Your task to perform on an android device: Show me popular games on the Play Store Image 0: 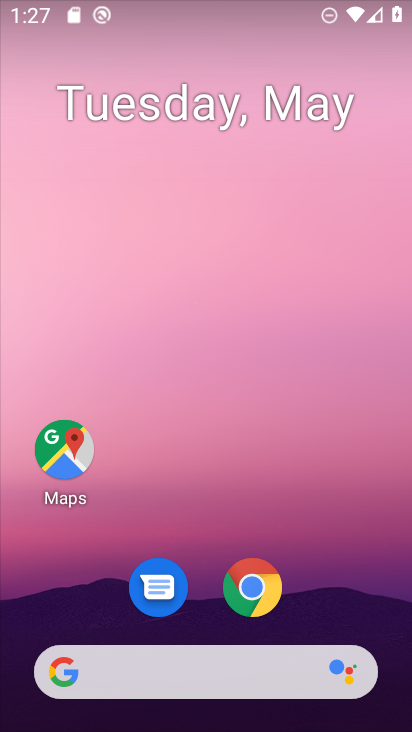
Step 0: drag from (222, 619) to (244, 425)
Your task to perform on an android device: Show me popular games on the Play Store Image 1: 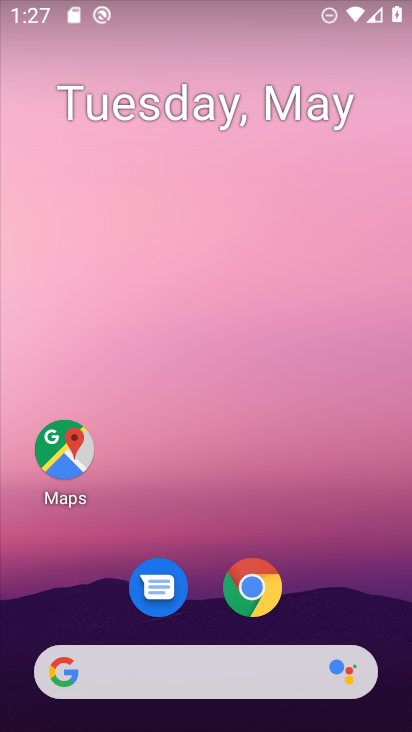
Step 1: drag from (204, 613) to (263, 145)
Your task to perform on an android device: Show me popular games on the Play Store Image 2: 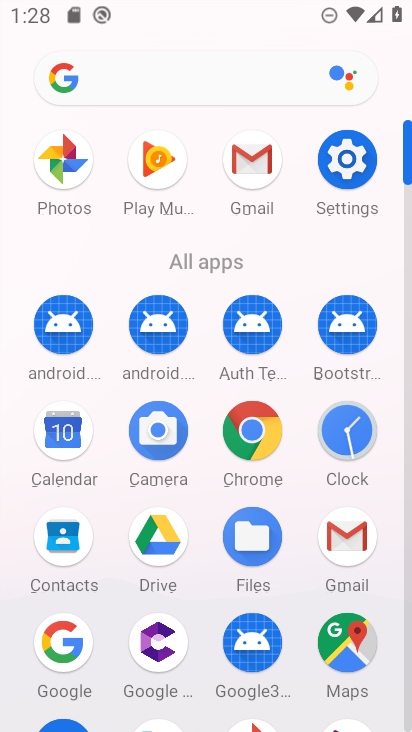
Step 2: drag from (134, 584) to (132, 34)
Your task to perform on an android device: Show me popular games on the Play Store Image 3: 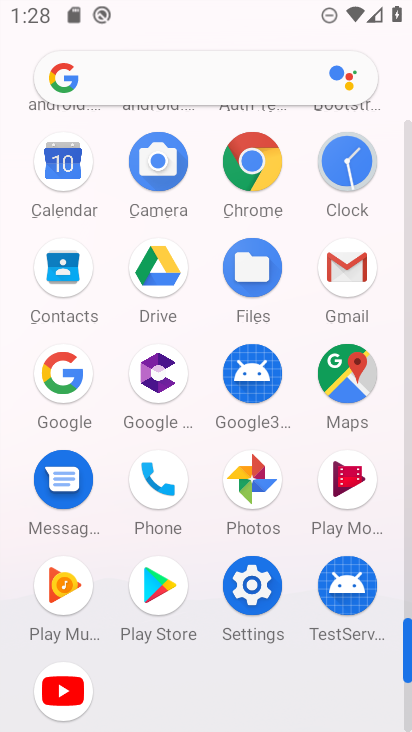
Step 3: click (145, 583)
Your task to perform on an android device: Show me popular games on the Play Store Image 4: 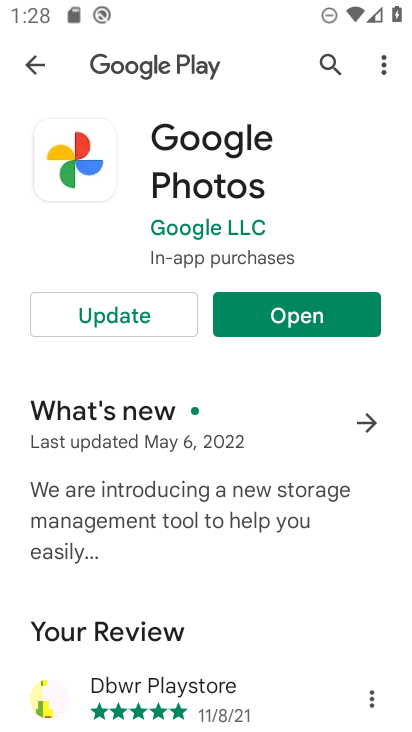
Step 4: click (29, 64)
Your task to perform on an android device: Show me popular games on the Play Store Image 5: 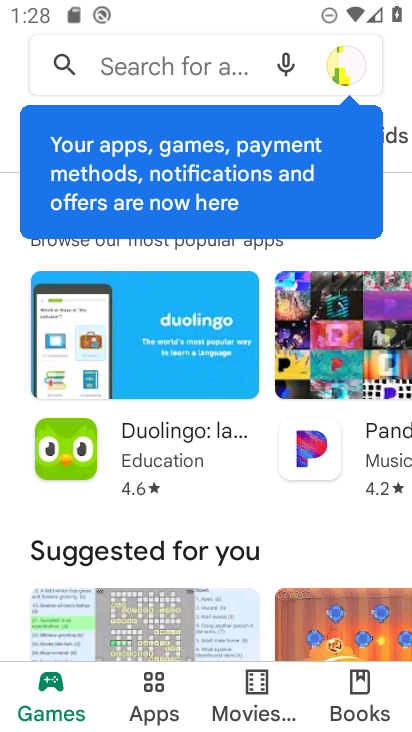
Step 5: click (397, 214)
Your task to perform on an android device: Show me popular games on the Play Store Image 6: 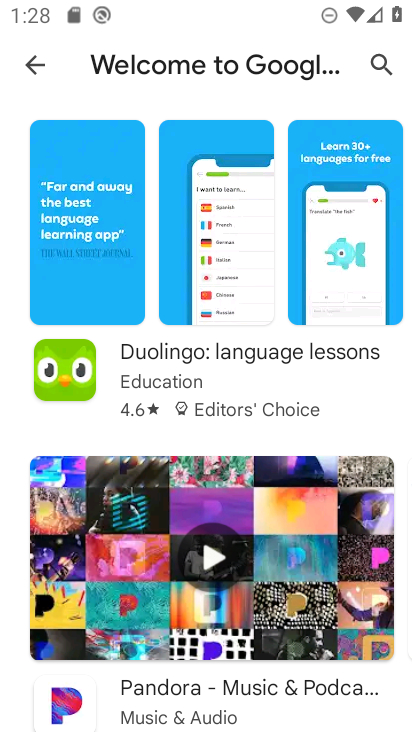
Step 6: click (35, 57)
Your task to perform on an android device: Show me popular games on the Play Store Image 7: 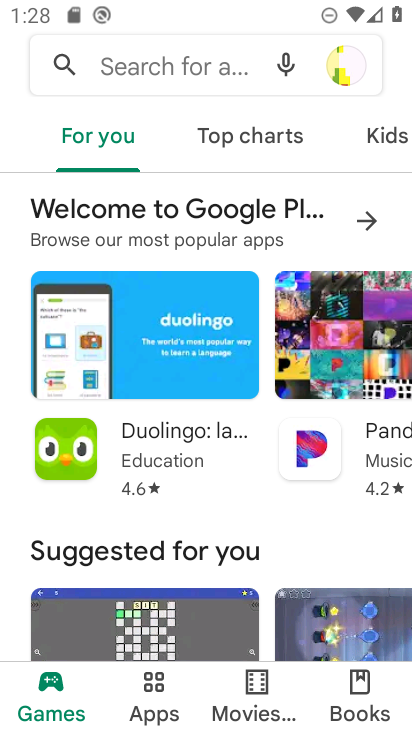
Step 7: click (283, 154)
Your task to perform on an android device: Show me popular games on the Play Store Image 8: 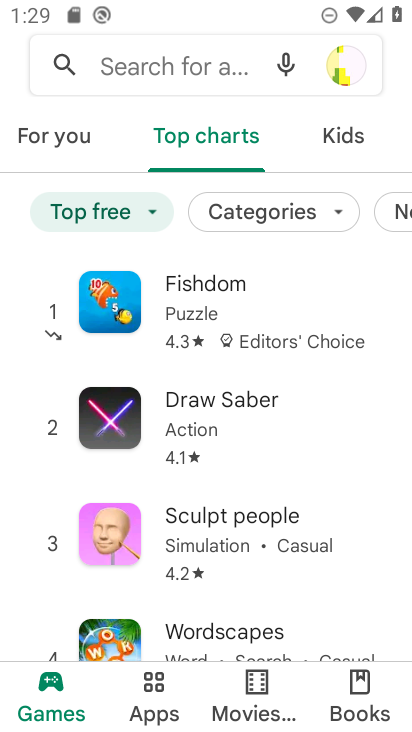
Step 8: task complete